Your task to perform on an android device: Open sound settings Image 0: 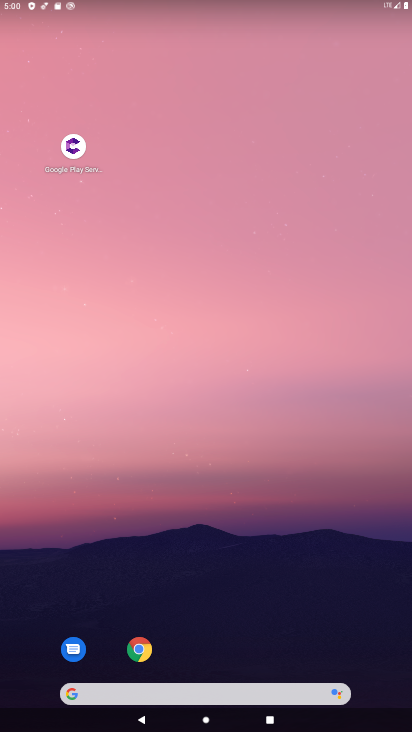
Step 0: drag from (196, 658) to (237, 17)
Your task to perform on an android device: Open sound settings Image 1: 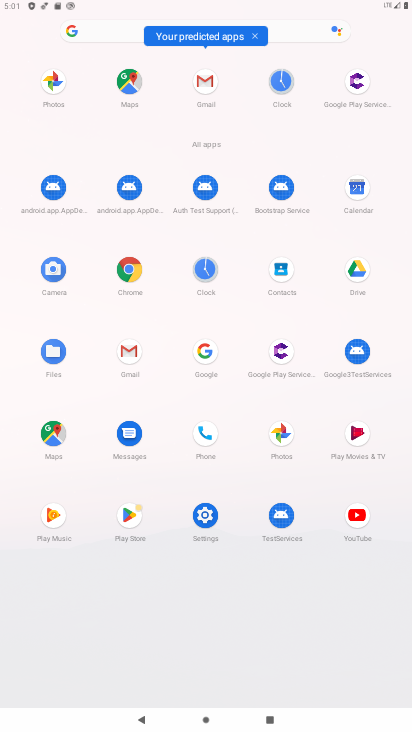
Step 1: click (198, 532)
Your task to perform on an android device: Open sound settings Image 2: 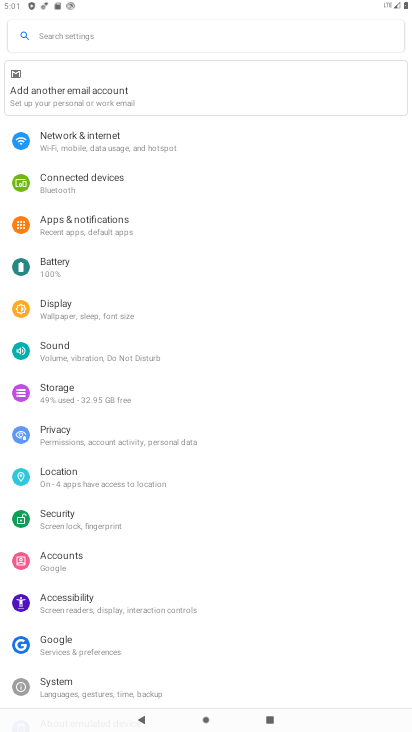
Step 2: click (55, 351)
Your task to perform on an android device: Open sound settings Image 3: 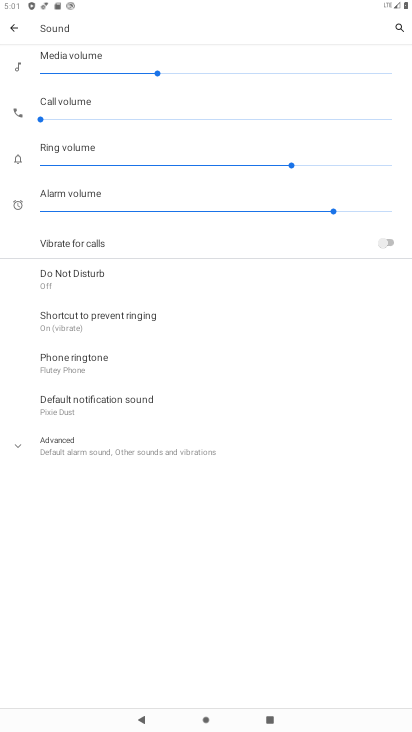
Step 3: task complete